Your task to perform on an android device: change the upload size in google photos Image 0: 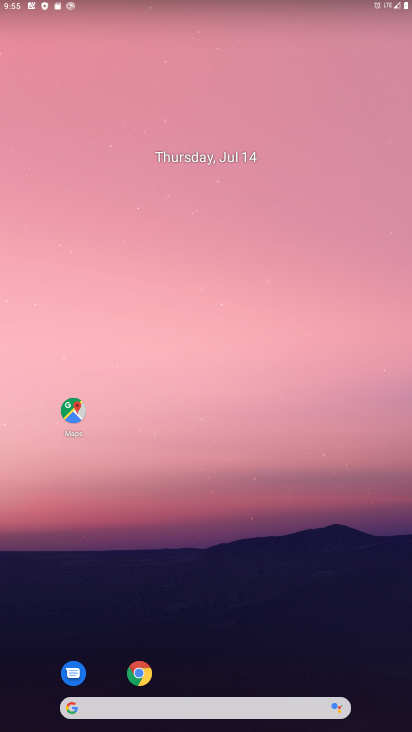
Step 0: drag from (178, 705) to (197, 300)
Your task to perform on an android device: change the upload size in google photos Image 1: 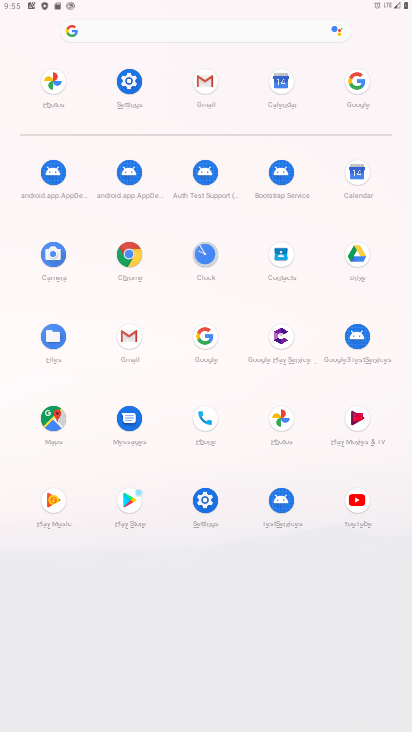
Step 1: click (275, 416)
Your task to perform on an android device: change the upload size in google photos Image 2: 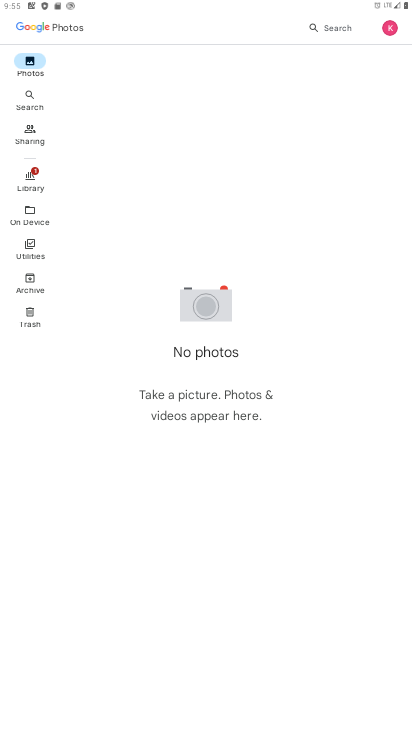
Step 2: click (388, 32)
Your task to perform on an android device: change the upload size in google photos Image 3: 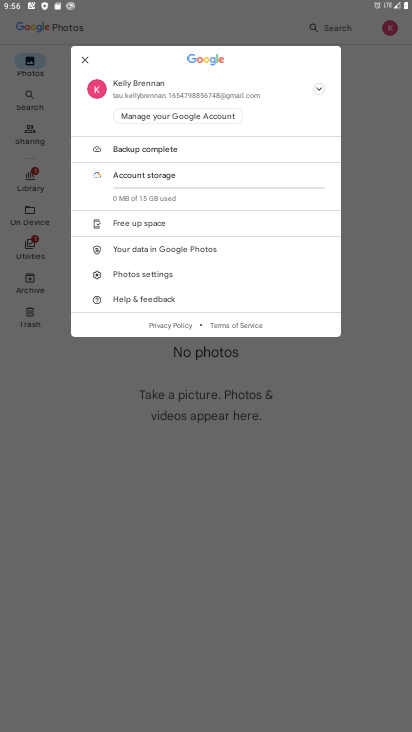
Step 3: click (158, 276)
Your task to perform on an android device: change the upload size in google photos Image 4: 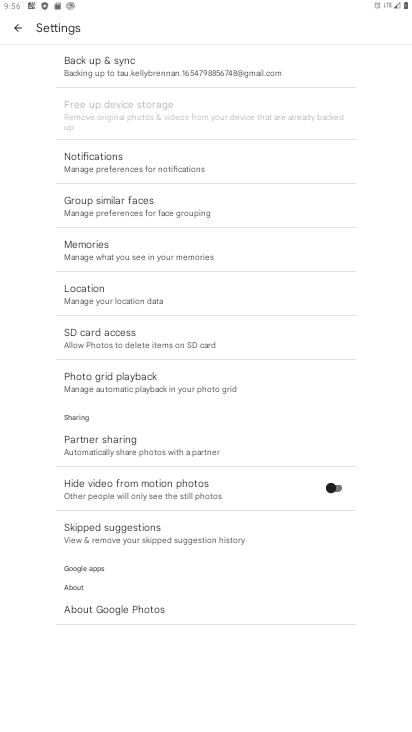
Step 4: click (186, 69)
Your task to perform on an android device: change the upload size in google photos Image 5: 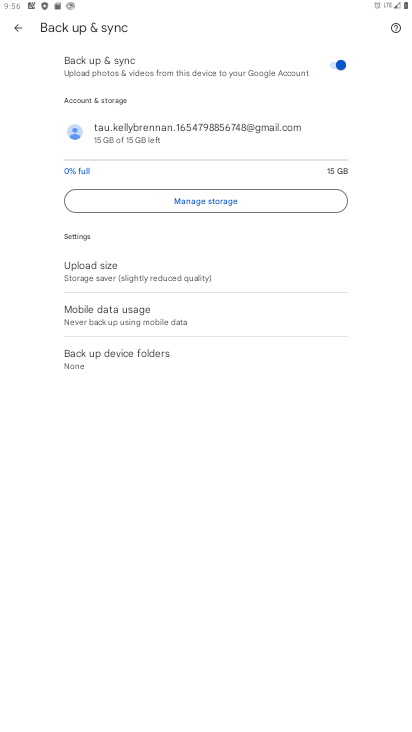
Step 5: click (124, 276)
Your task to perform on an android device: change the upload size in google photos Image 6: 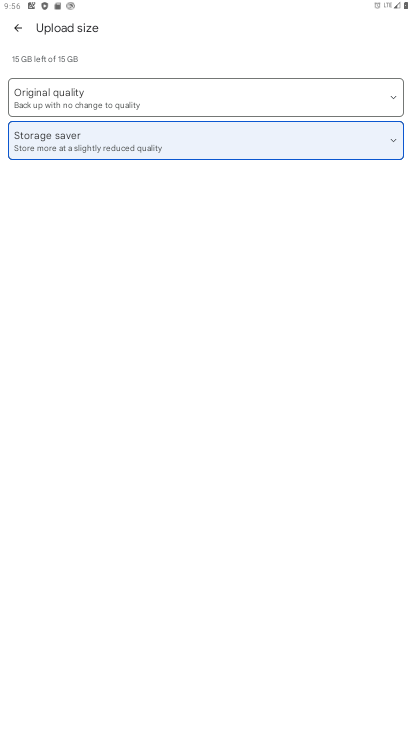
Step 6: click (40, 99)
Your task to perform on an android device: change the upload size in google photos Image 7: 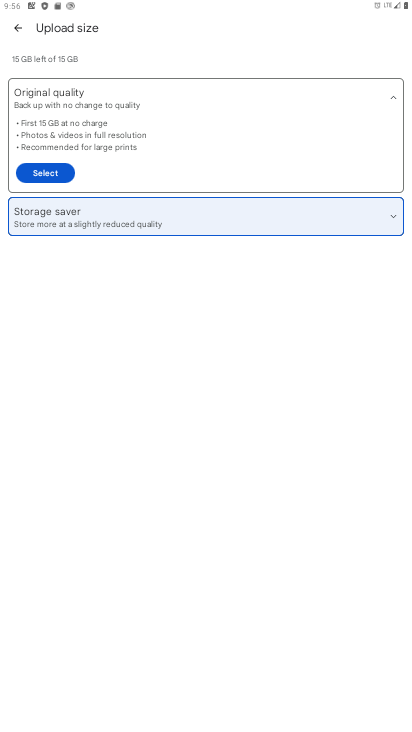
Step 7: click (50, 165)
Your task to perform on an android device: change the upload size in google photos Image 8: 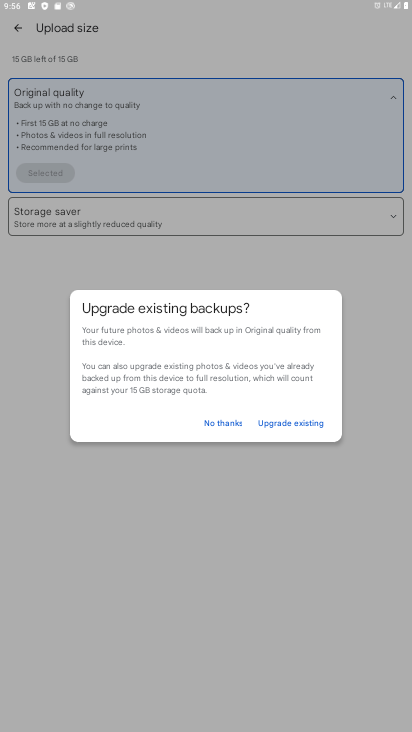
Step 8: click (228, 423)
Your task to perform on an android device: change the upload size in google photos Image 9: 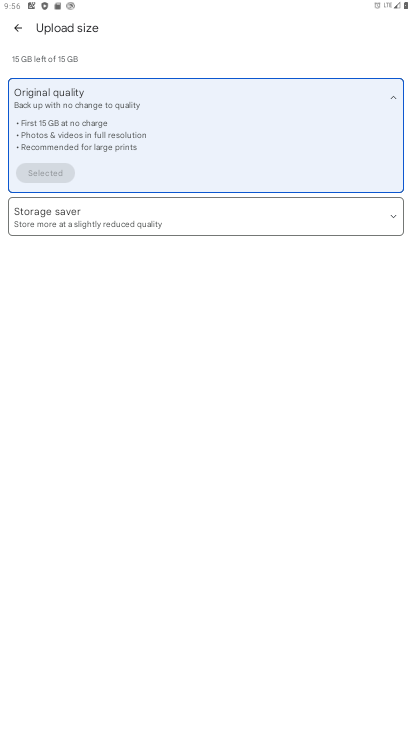
Step 9: task complete